Your task to perform on an android device: Go to Yahoo.com Image 0: 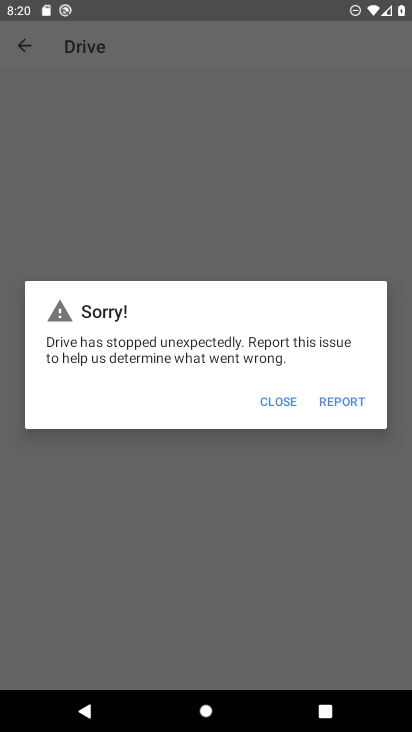
Step 0: press home button
Your task to perform on an android device: Go to Yahoo.com Image 1: 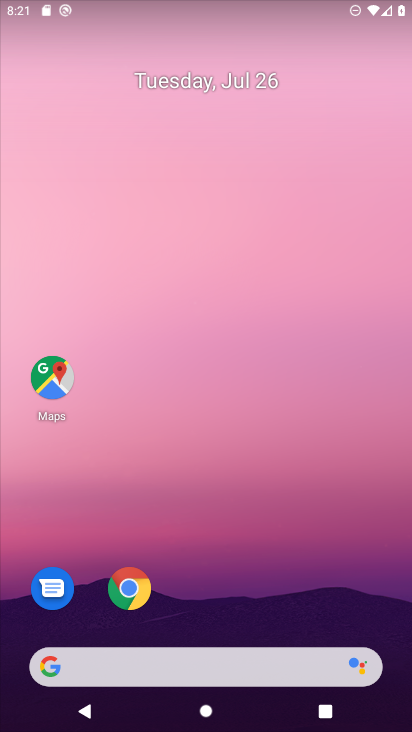
Step 1: click (130, 591)
Your task to perform on an android device: Go to Yahoo.com Image 2: 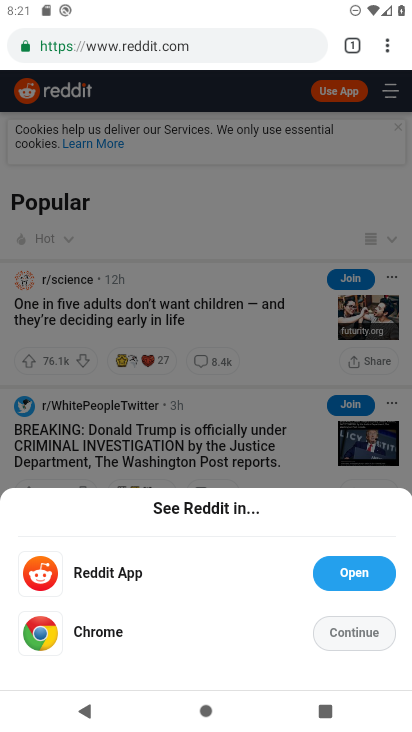
Step 2: click (90, 45)
Your task to perform on an android device: Go to Yahoo.com Image 3: 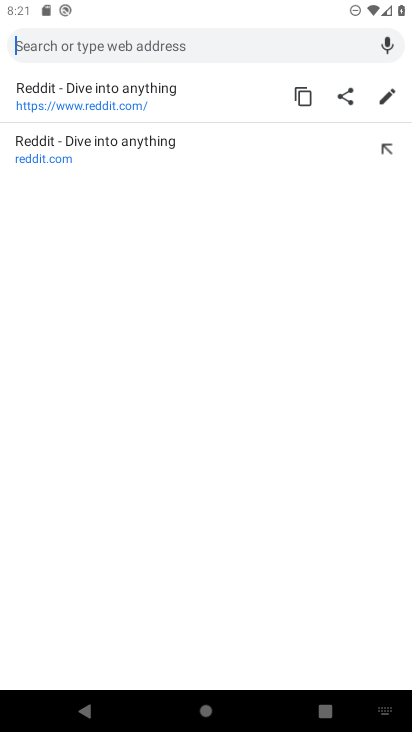
Step 3: type "yahoo.com"
Your task to perform on an android device: Go to Yahoo.com Image 4: 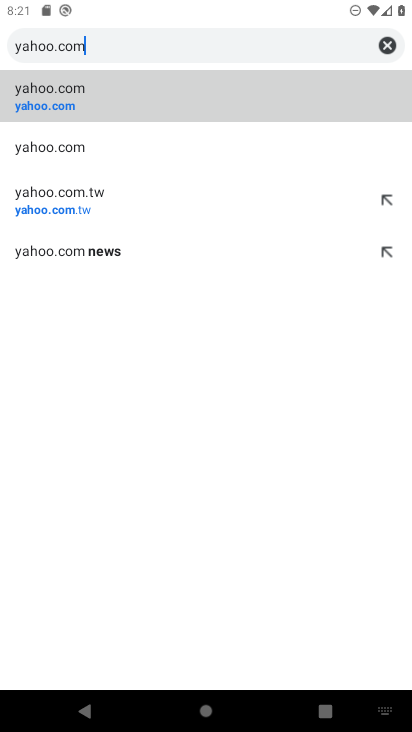
Step 4: click (31, 111)
Your task to perform on an android device: Go to Yahoo.com Image 5: 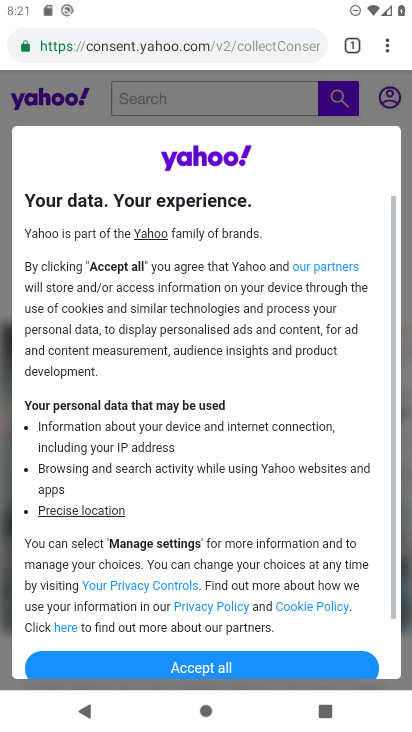
Step 5: task complete